Your task to perform on an android device: turn notification dots on Image 0: 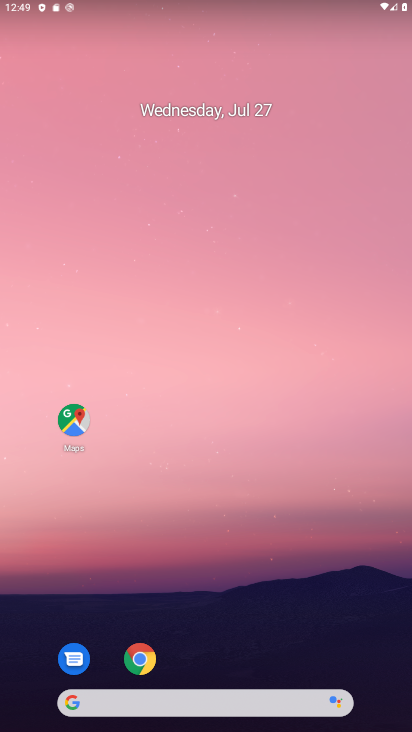
Step 0: drag from (307, 587) to (240, 100)
Your task to perform on an android device: turn notification dots on Image 1: 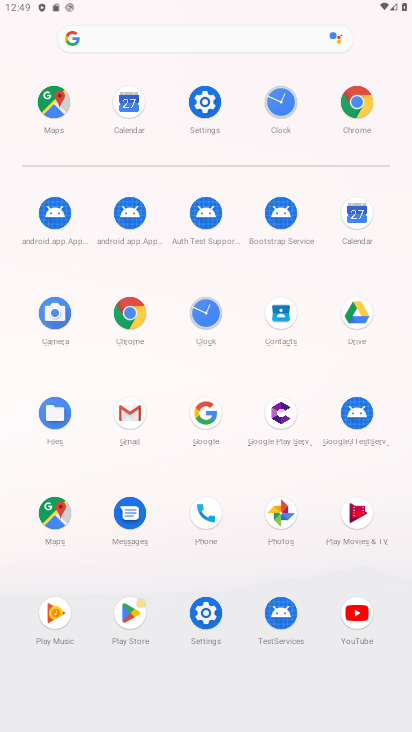
Step 1: click (221, 111)
Your task to perform on an android device: turn notification dots on Image 2: 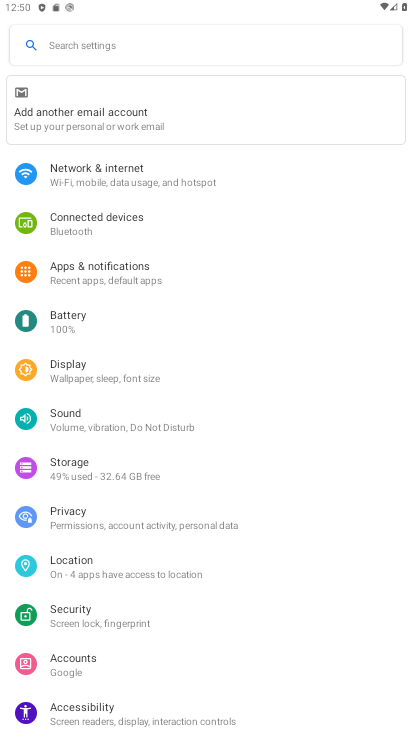
Step 2: click (113, 265)
Your task to perform on an android device: turn notification dots on Image 3: 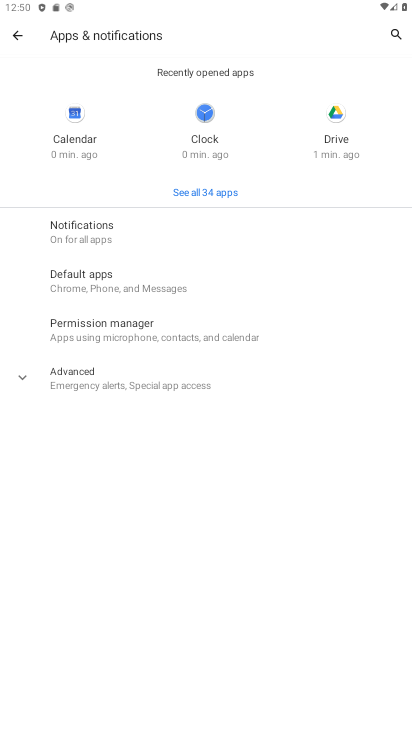
Step 3: click (99, 242)
Your task to perform on an android device: turn notification dots on Image 4: 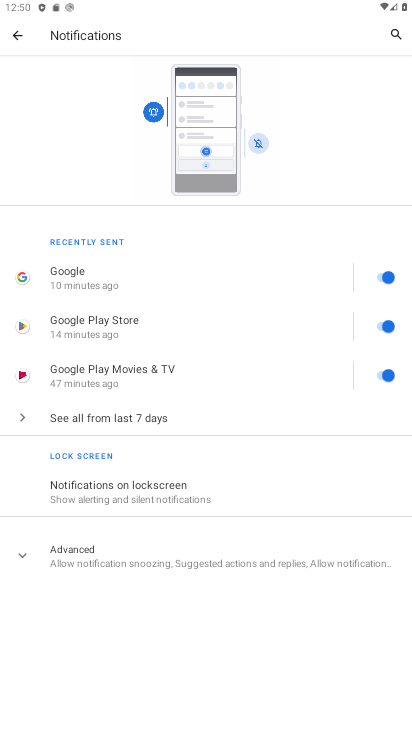
Step 4: click (179, 570)
Your task to perform on an android device: turn notification dots on Image 5: 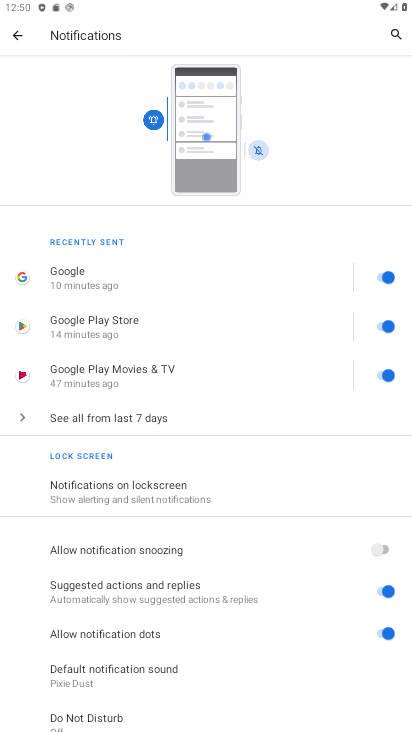
Step 5: task complete